Your task to perform on an android device: toggle wifi Image 0: 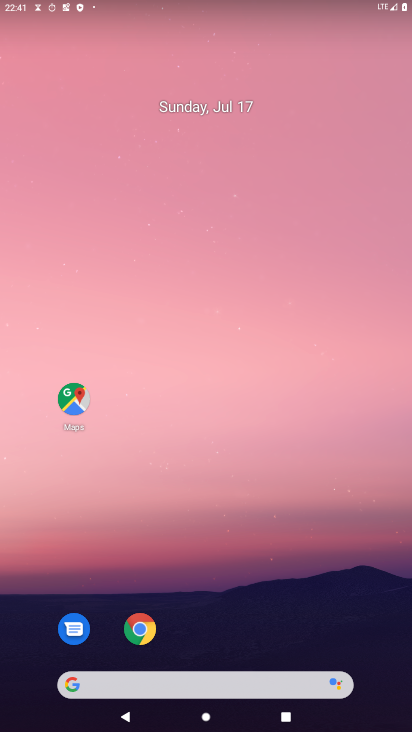
Step 0: drag from (228, 684) to (200, 64)
Your task to perform on an android device: toggle wifi Image 1: 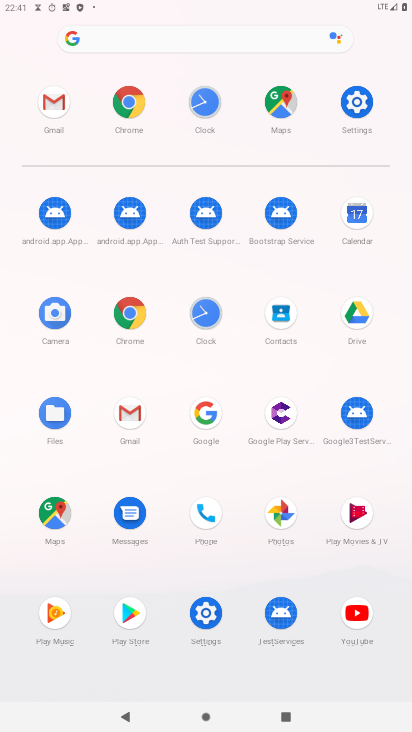
Step 1: click (361, 99)
Your task to perform on an android device: toggle wifi Image 2: 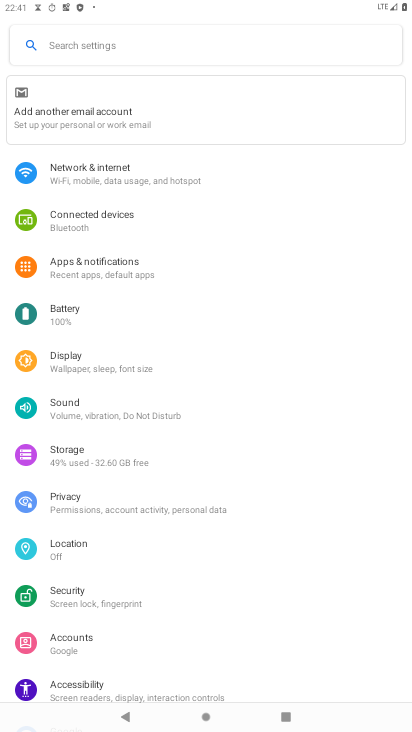
Step 2: click (98, 172)
Your task to perform on an android device: toggle wifi Image 3: 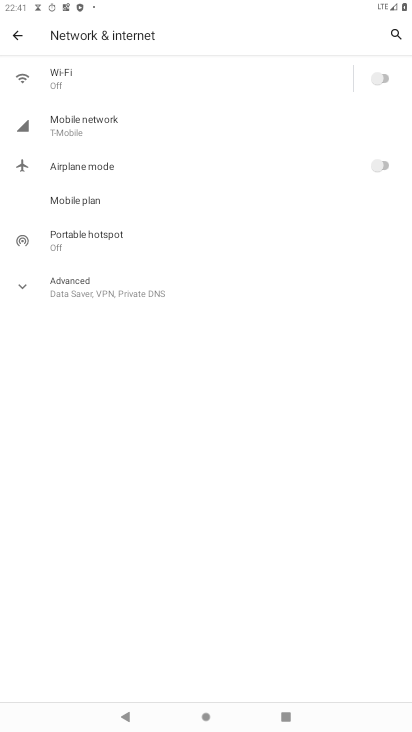
Step 3: click (380, 72)
Your task to perform on an android device: toggle wifi Image 4: 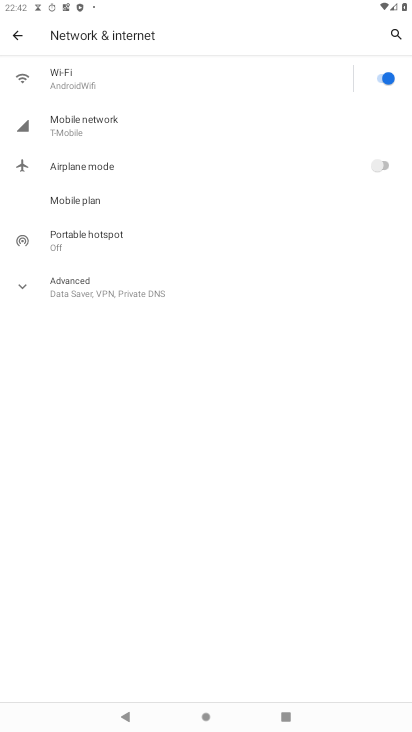
Step 4: task complete